Your task to perform on an android device: turn on airplane mode Image 0: 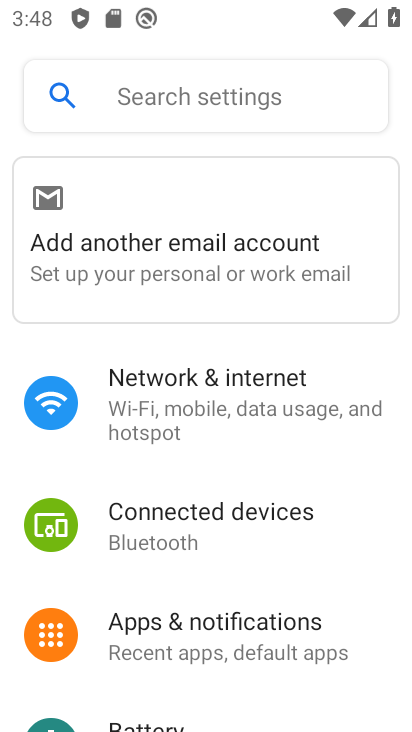
Step 0: press back button
Your task to perform on an android device: turn on airplane mode Image 1: 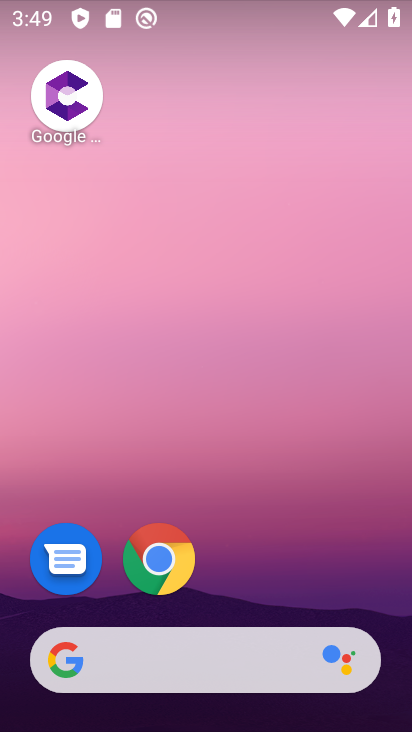
Step 1: drag from (359, 5) to (286, 517)
Your task to perform on an android device: turn on airplane mode Image 2: 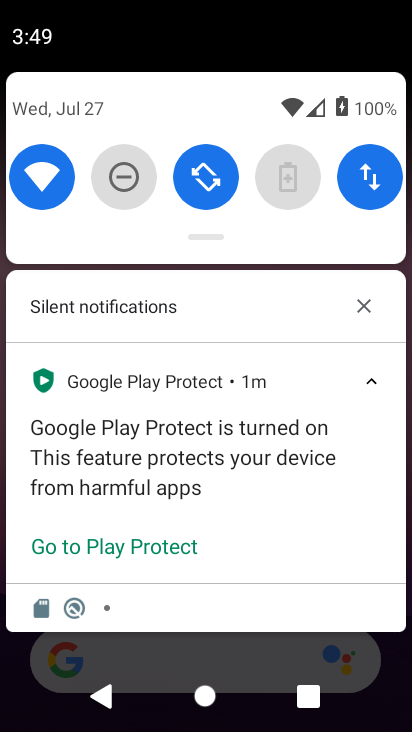
Step 2: drag from (205, 218) to (248, 638)
Your task to perform on an android device: turn on airplane mode Image 3: 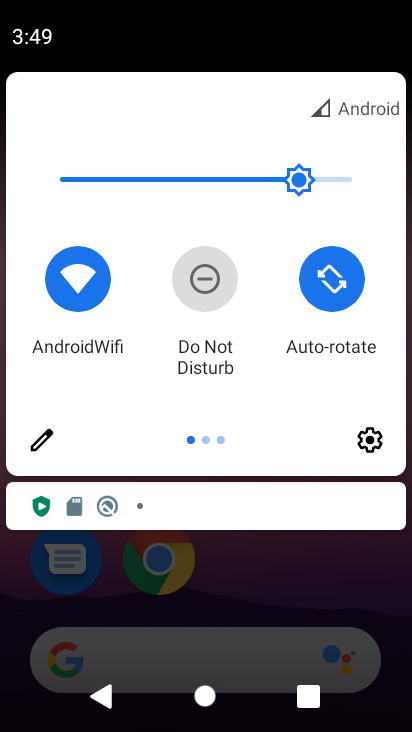
Step 3: drag from (357, 302) to (30, 304)
Your task to perform on an android device: turn on airplane mode Image 4: 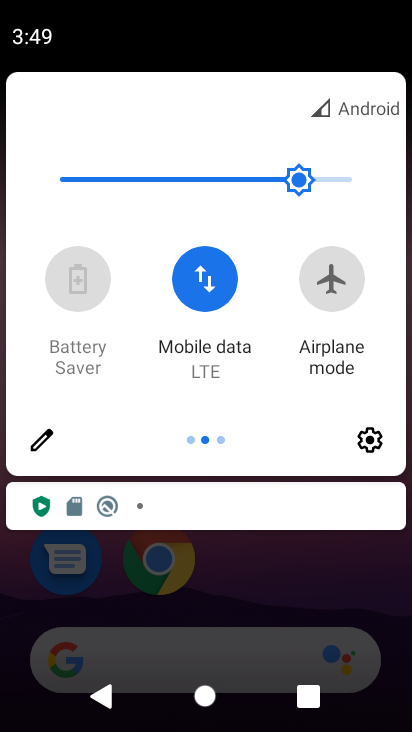
Step 4: click (339, 277)
Your task to perform on an android device: turn on airplane mode Image 5: 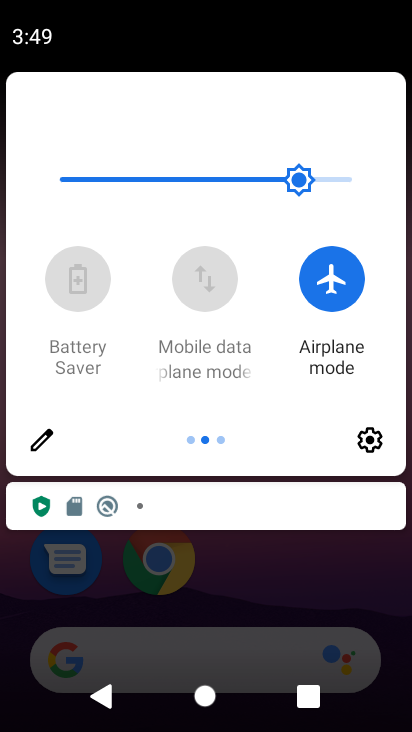
Step 5: task complete